Your task to perform on an android device: Go to display settings Image 0: 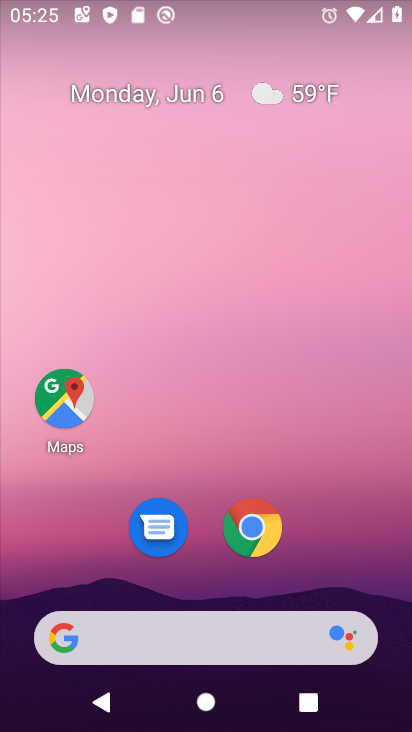
Step 0: drag from (390, 719) to (342, 27)
Your task to perform on an android device: Go to display settings Image 1: 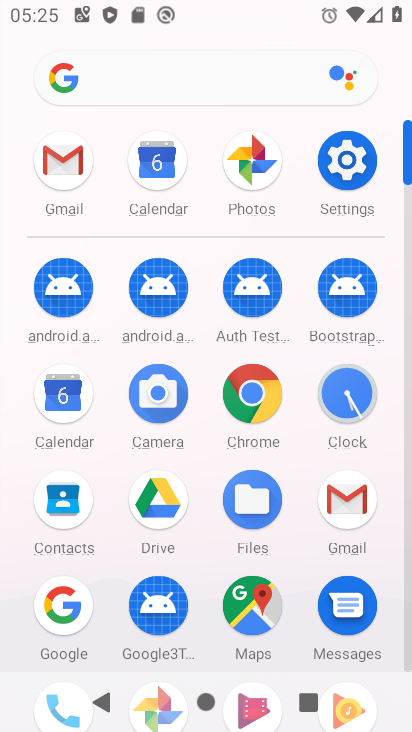
Step 1: click (358, 154)
Your task to perform on an android device: Go to display settings Image 2: 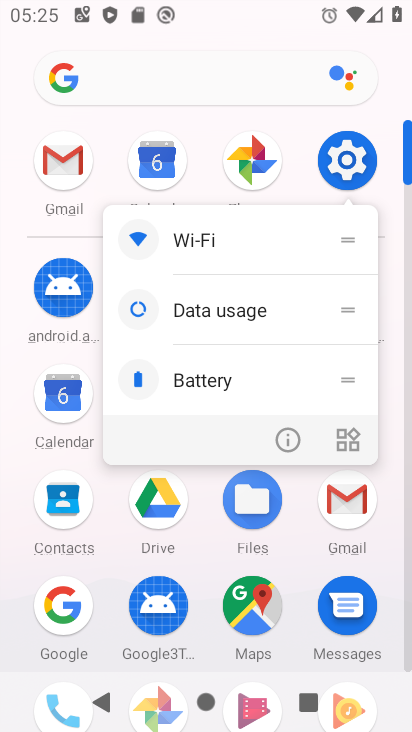
Step 2: click (346, 158)
Your task to perform on an android device: Go to display settings Image 3: 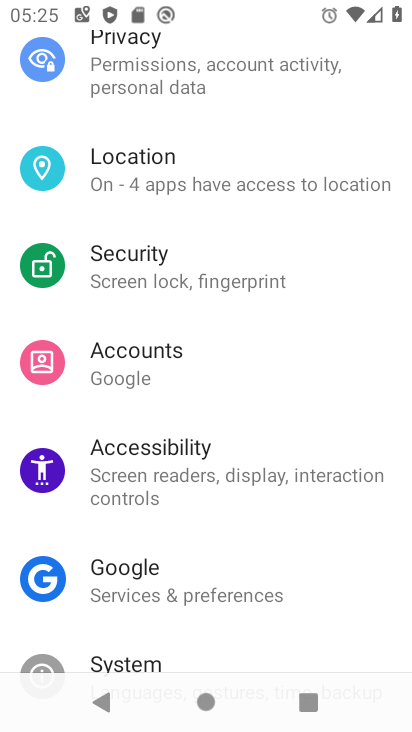
Step 3: drag from (274, 615) to (291, 238)
Your task to perform on an android device: Go to display settings Image 4: 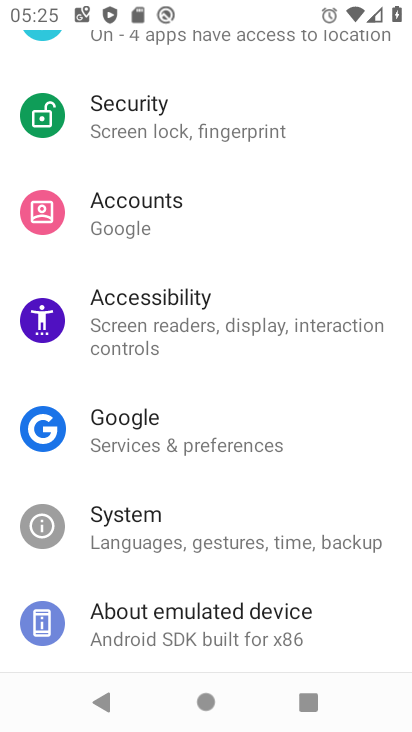
Step 4: drag from (306, 192) to (348, 607)
Your task to perform on an android device: Go to display settings Image 5: 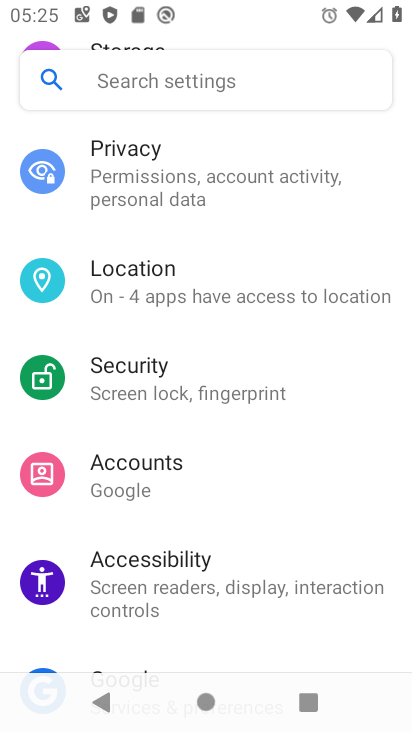
Step 5: drag from (312, 299) to (356, 605)
Your task to perform on an android device: Go to display settings Image 6: 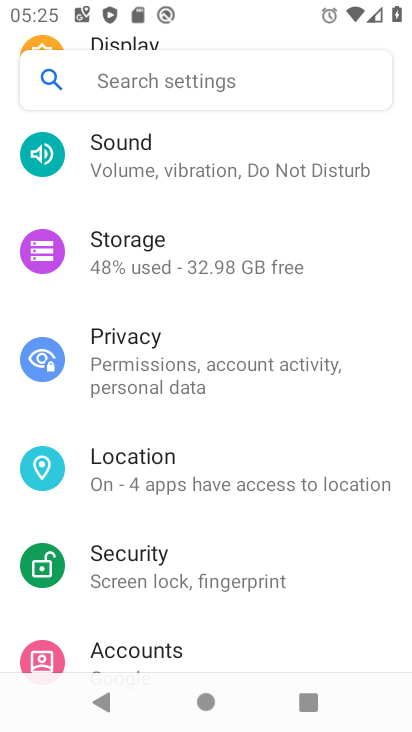
Step 6: drag from (250, 142) to (365, 618)
Your task to perform on an android device: Go to display settings Image 7: 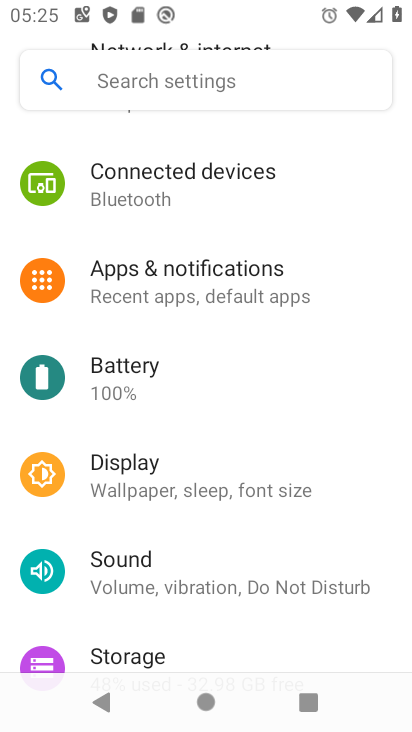
Step 7: click (125, 475)
Your task to perform on an android device: Go to display settings Image 8: 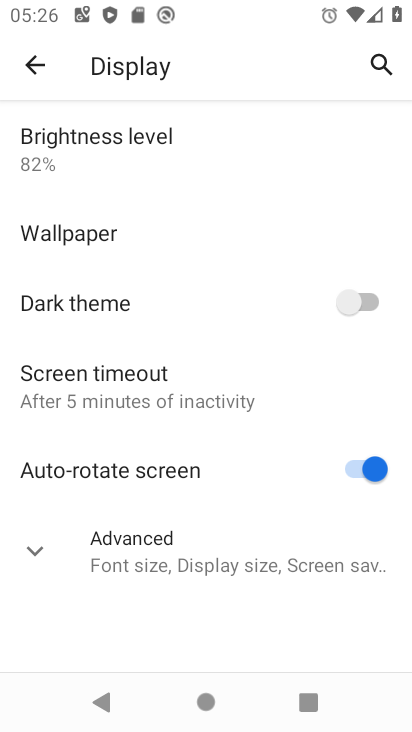
Step 8: drag from (247, 164) to (253, 503)
Your task to perform on an android device: Go to display settings Image 9: 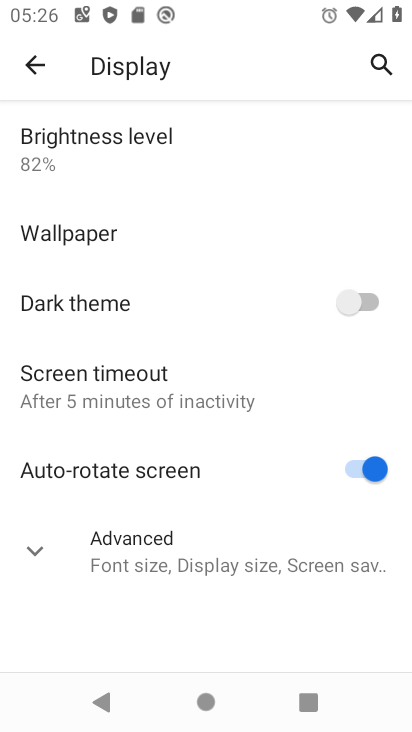
Step 9: click (33, 555)
Your task to perform on an android device: Go to display settings Image 10: 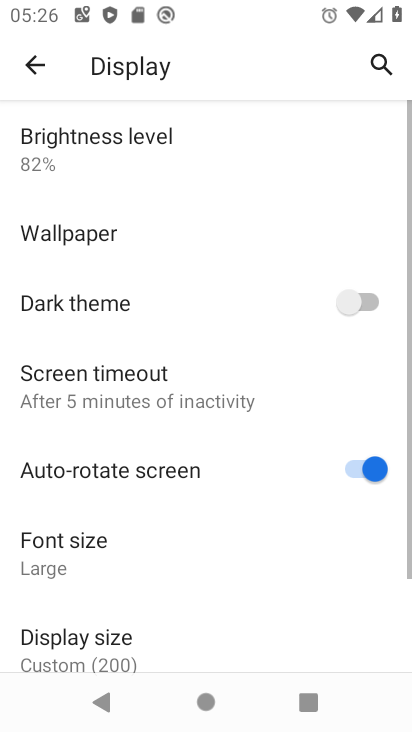
Step 10: task complete